Your task to perform on an android device: turn off data saver in the chrome app Image 0: 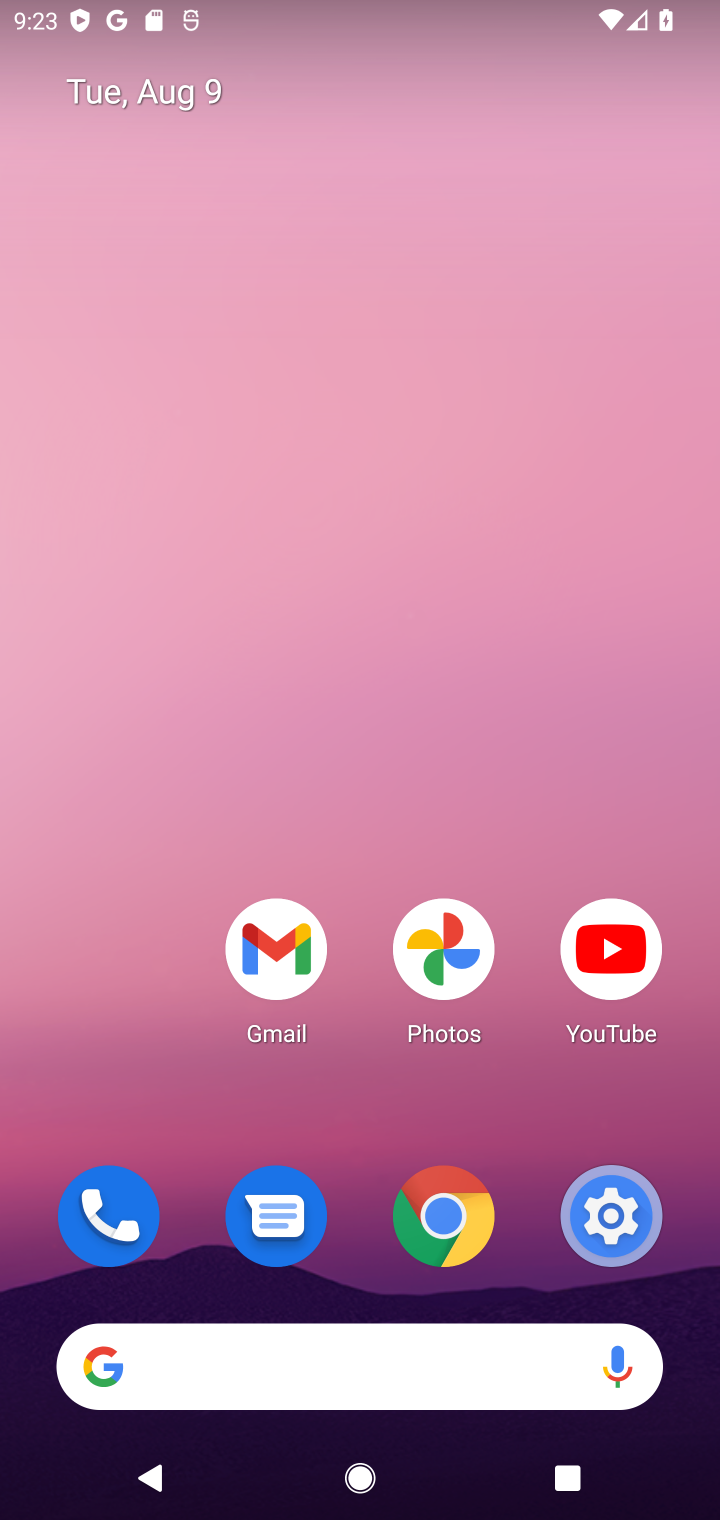
Step 0: click (432, 1205)
Your task to perform on an android device: turn off data saver in the chrome app Image 1: 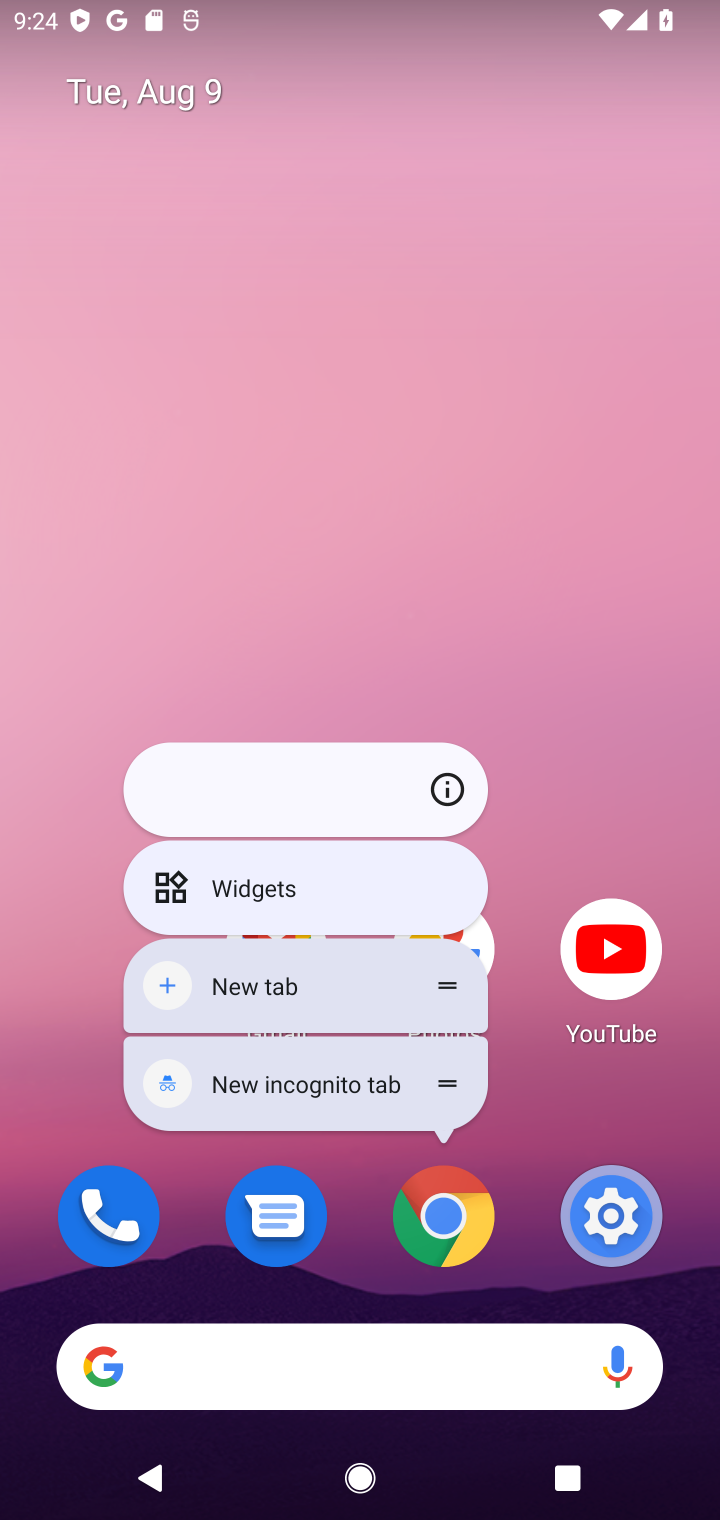
Step 1: click (468, 1216)
Your task to perform on an android device: turn off data saver in the chrome app Image 2: 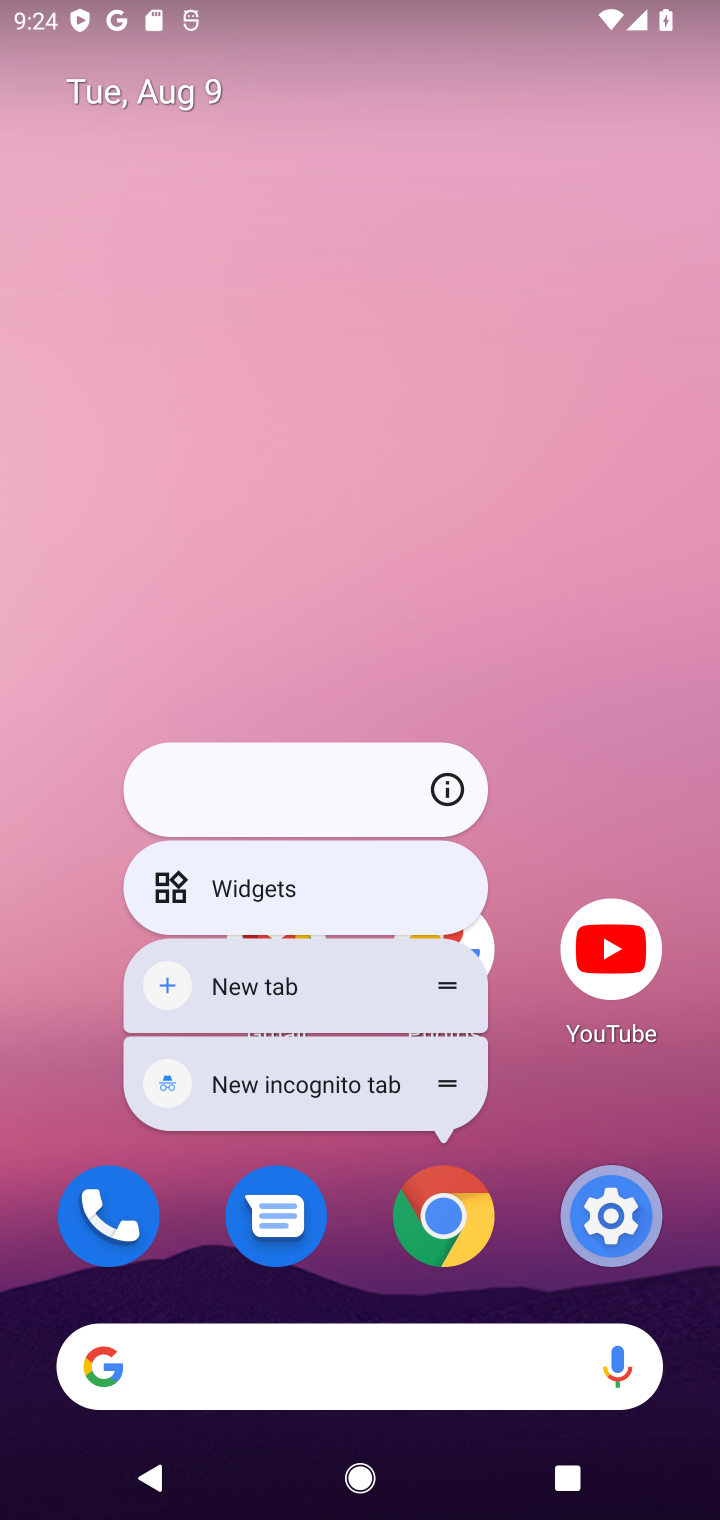
Step 2: click (442, 1217)
Your task to perform on an android device: turn off data saver in the chrome app Image 3: 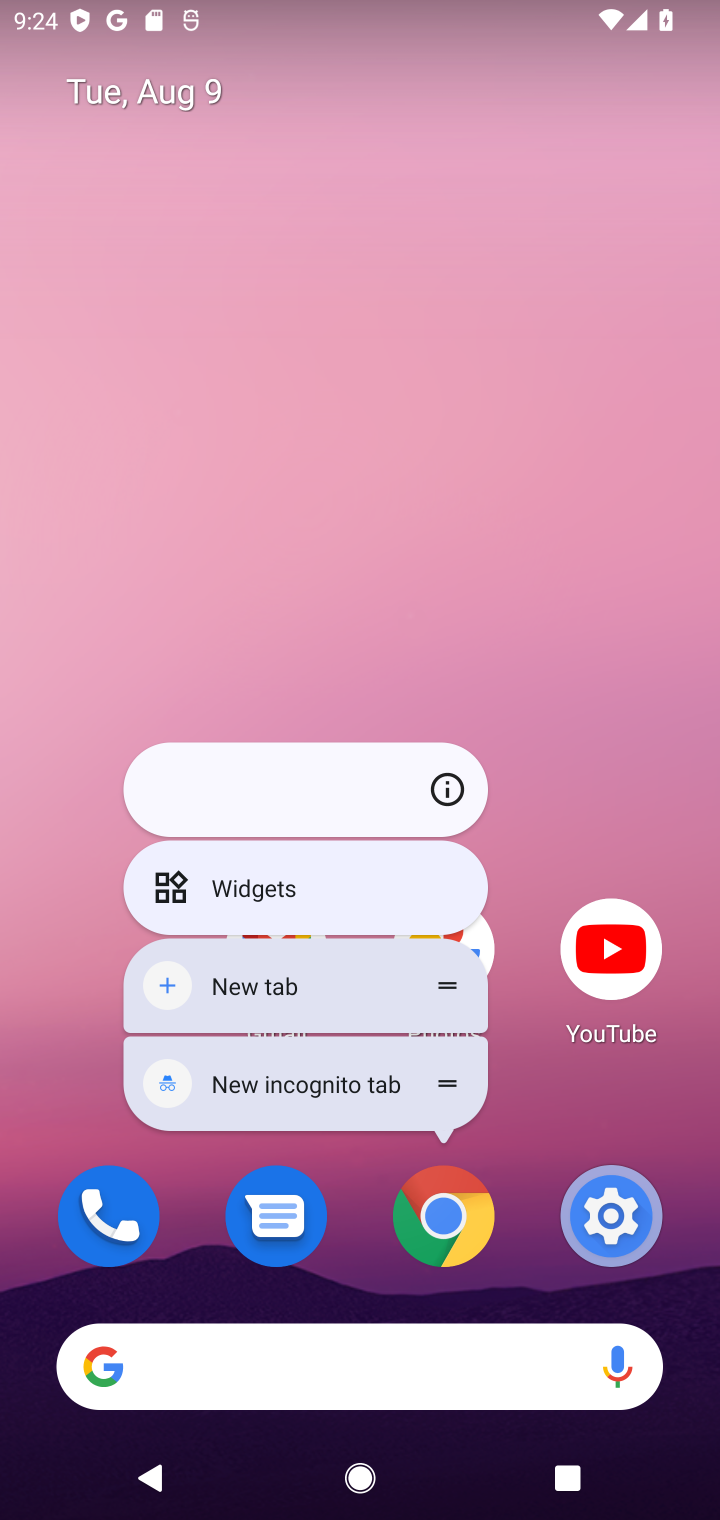
Step 3: click (442, 1243)
Your task to perform on an android device: turn off data saver in the chrome app Image 4: 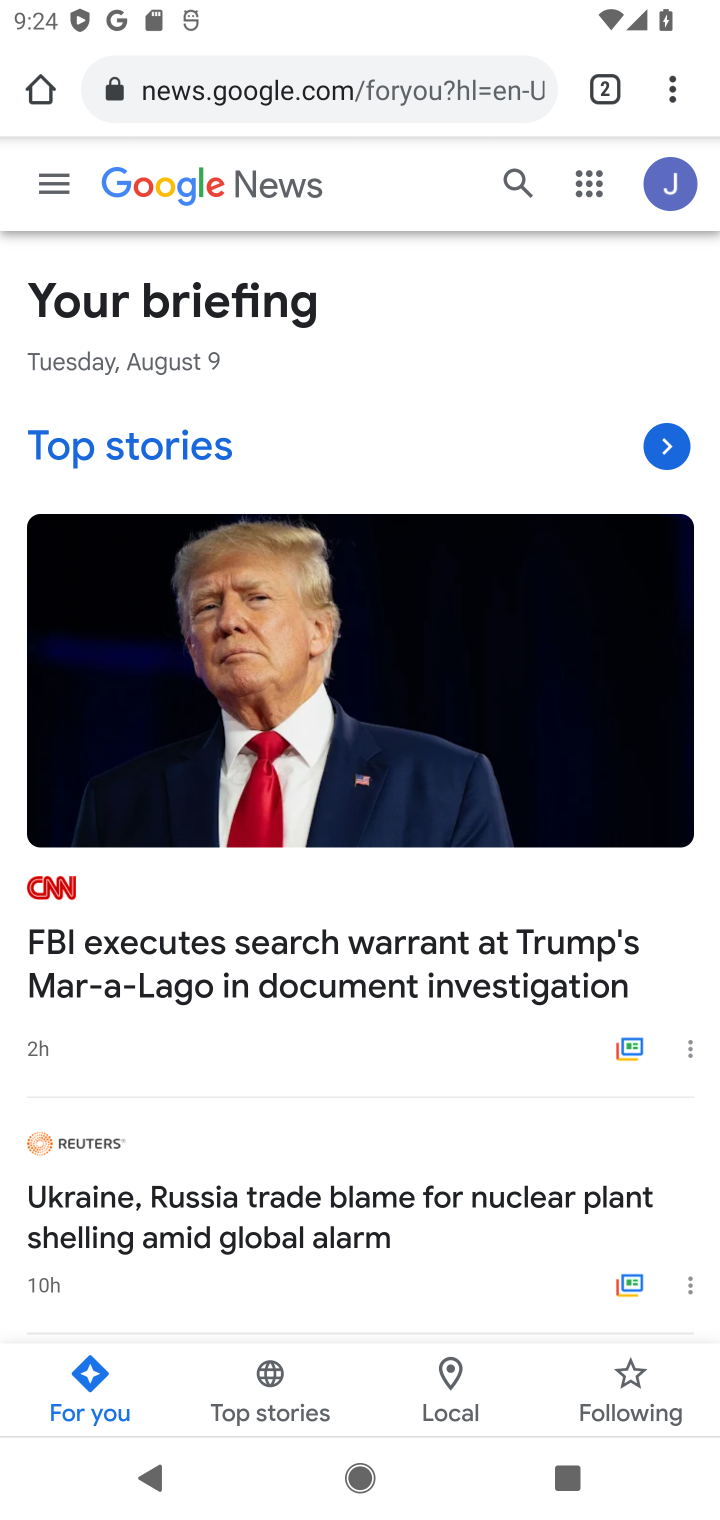
Step 4: click (674, 91)
Your task to perform on an android device: turn off data saver in the chrome app Image 5: 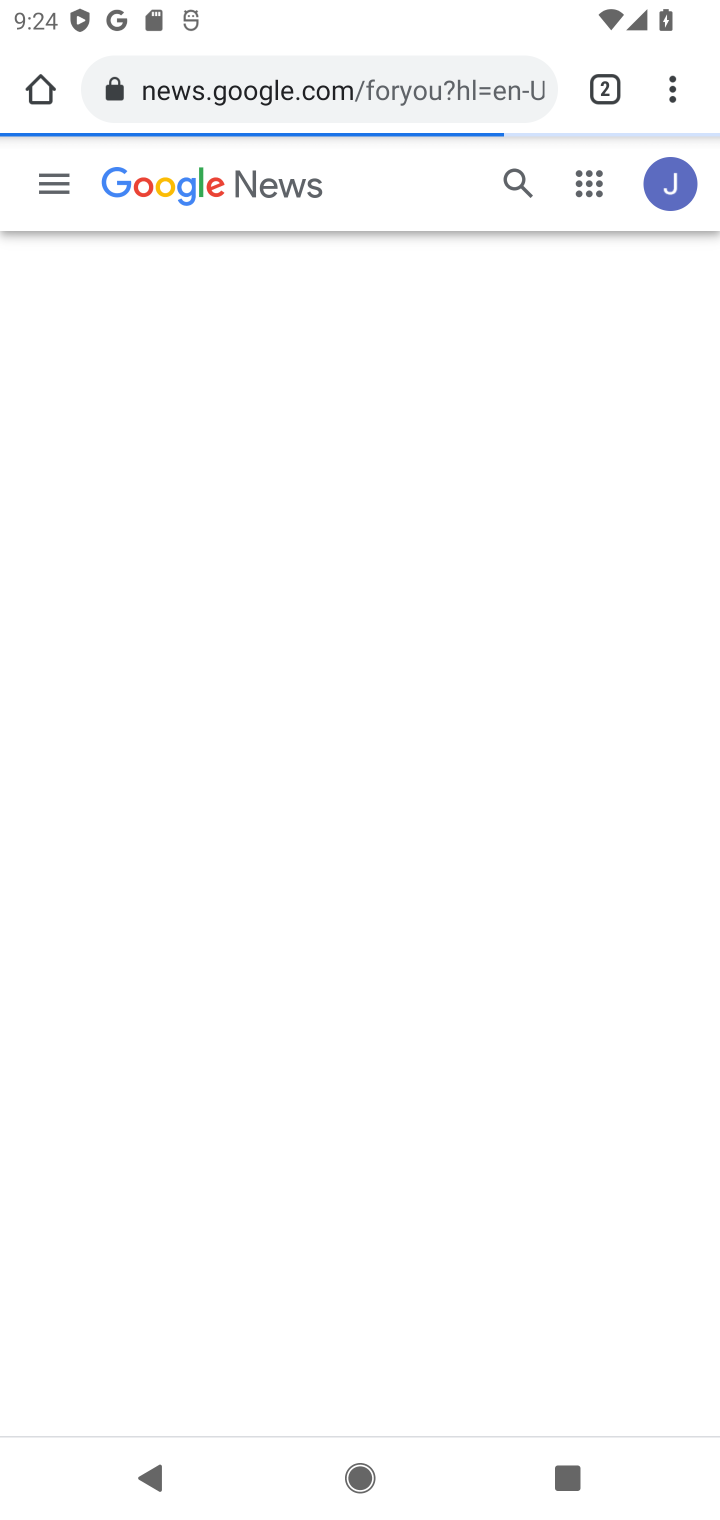
Step 5: click (673, 86)
Your task to perform on an android device: turn off data saver in the chrome app Image 6: 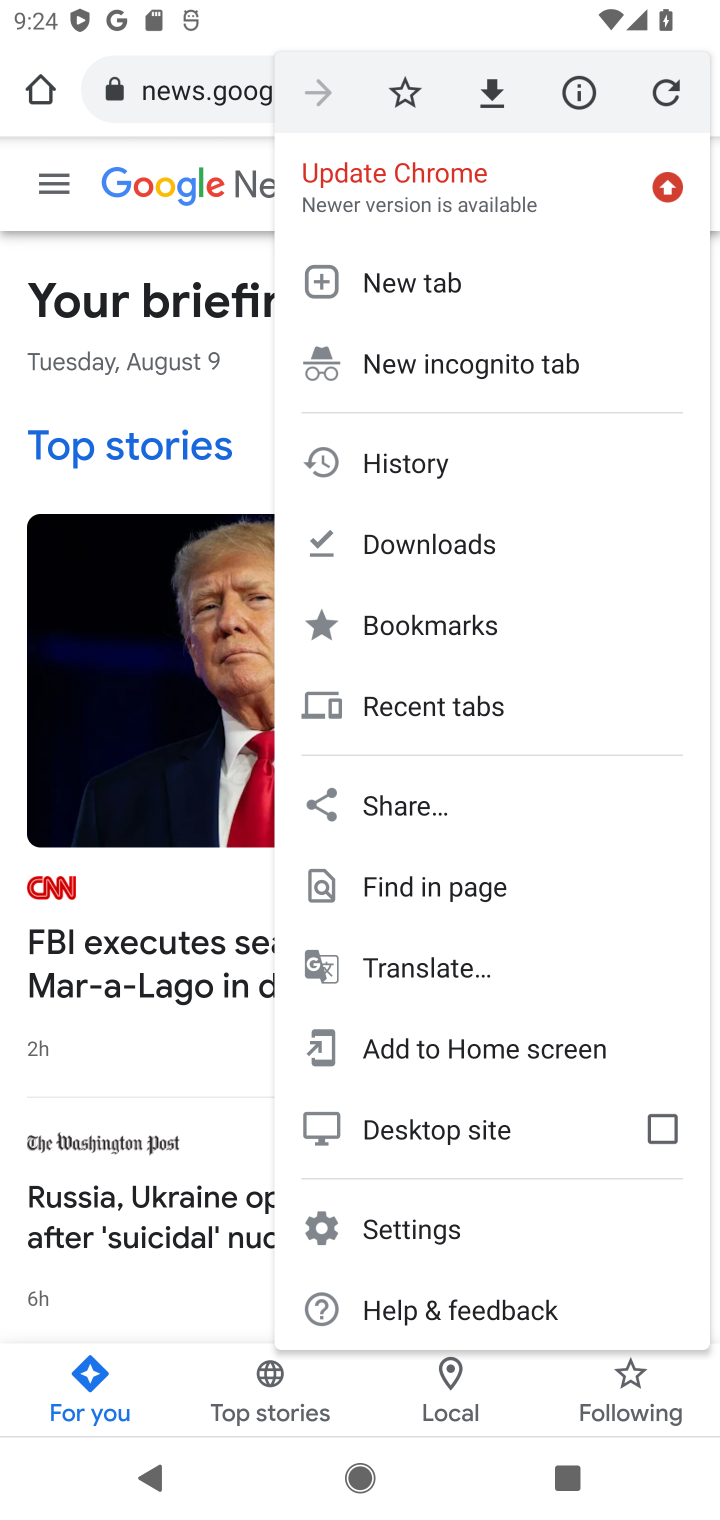
Step 6: click (669, 100)
Your task to perform on an android device: turn off data saver in the chrome app Image 7: 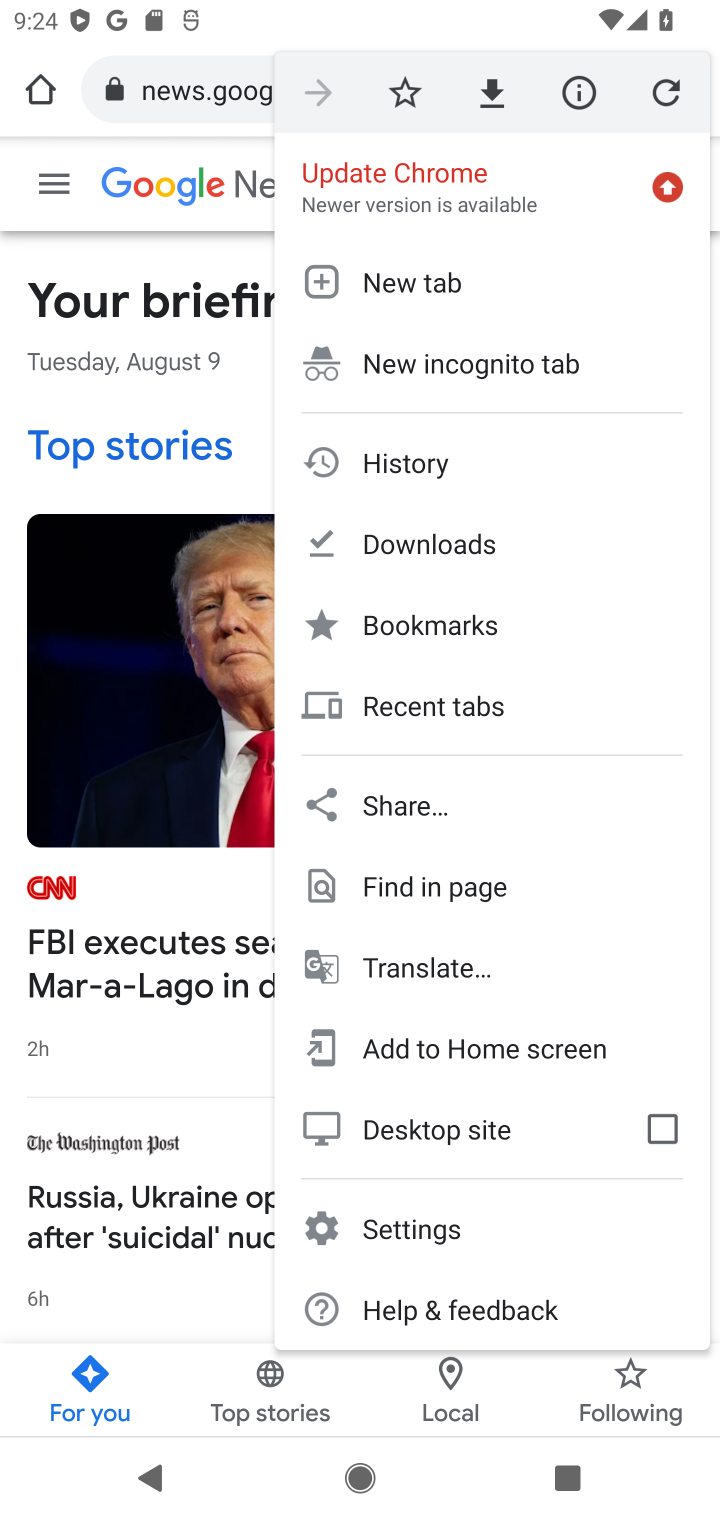
Step 7: click (402, 1218)
Your task to perform on an android device: turn off data saver in the chrome app Image 8: 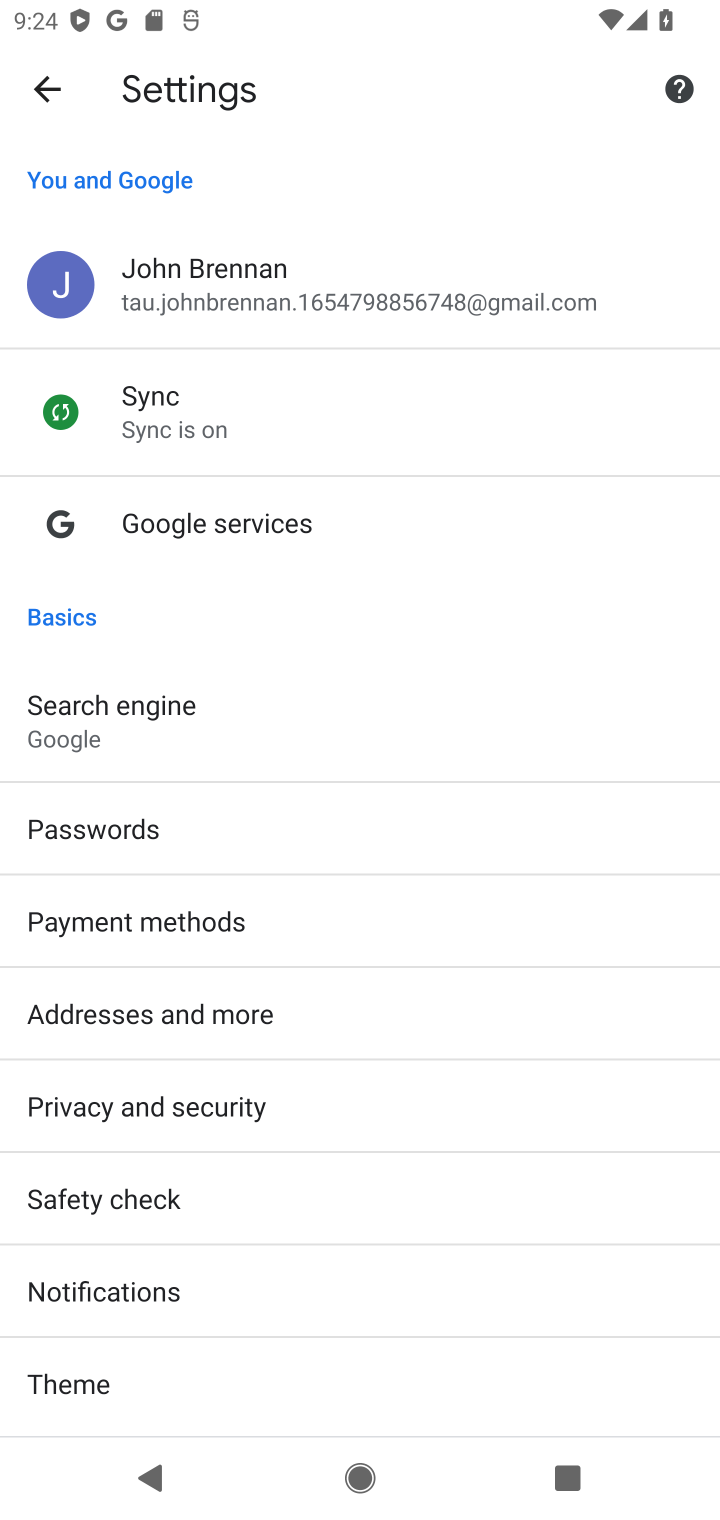
Step 8: drag from (262, 1426) to (320, 810)
Your task to perform on an android device: turn off data saver in the chrome app Image 9: 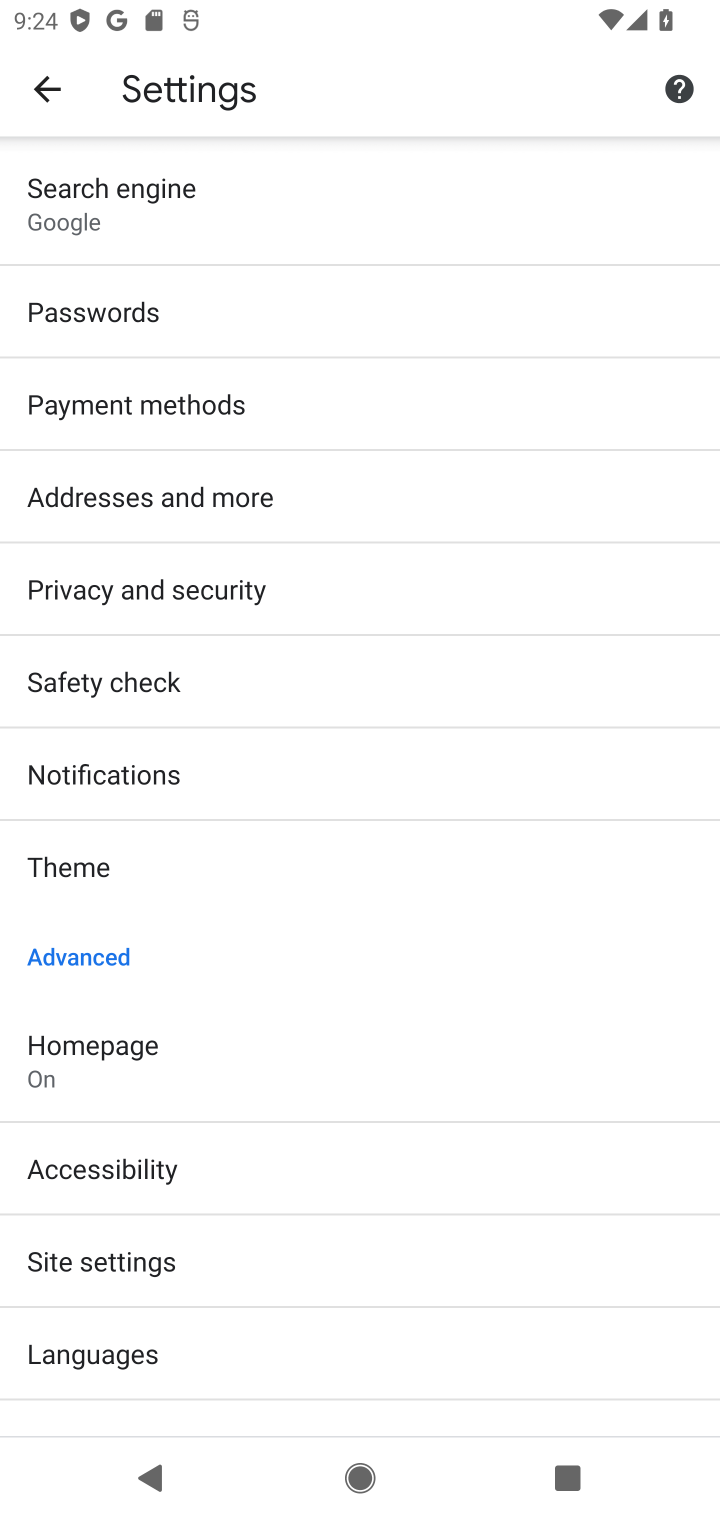
Step 9: click (131, 1274)
Your task to perform on an android device: turn off data saver in the chrome app Image 10: 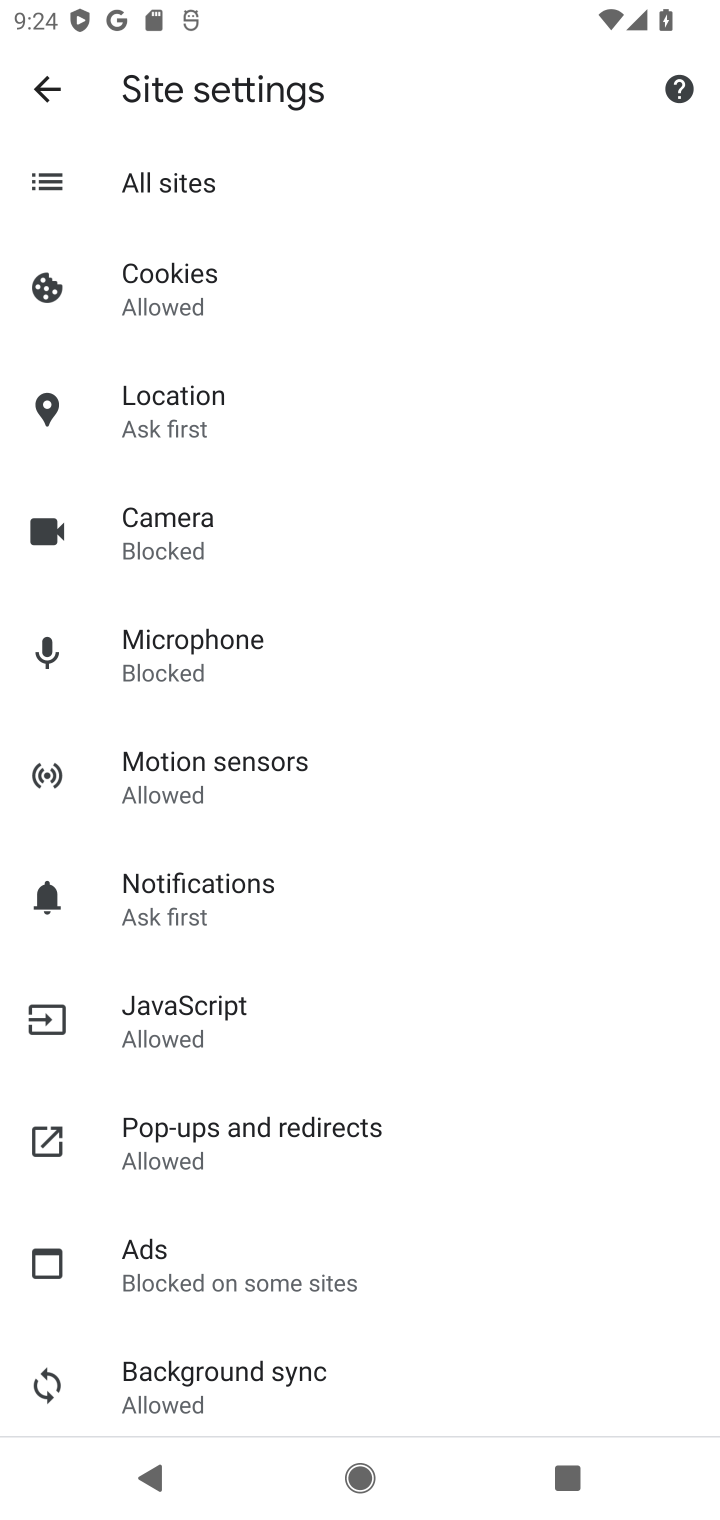
Step 10: click (35, 84)
Your task to perform on an android device: turn off data saver in the chrome app Image 11: 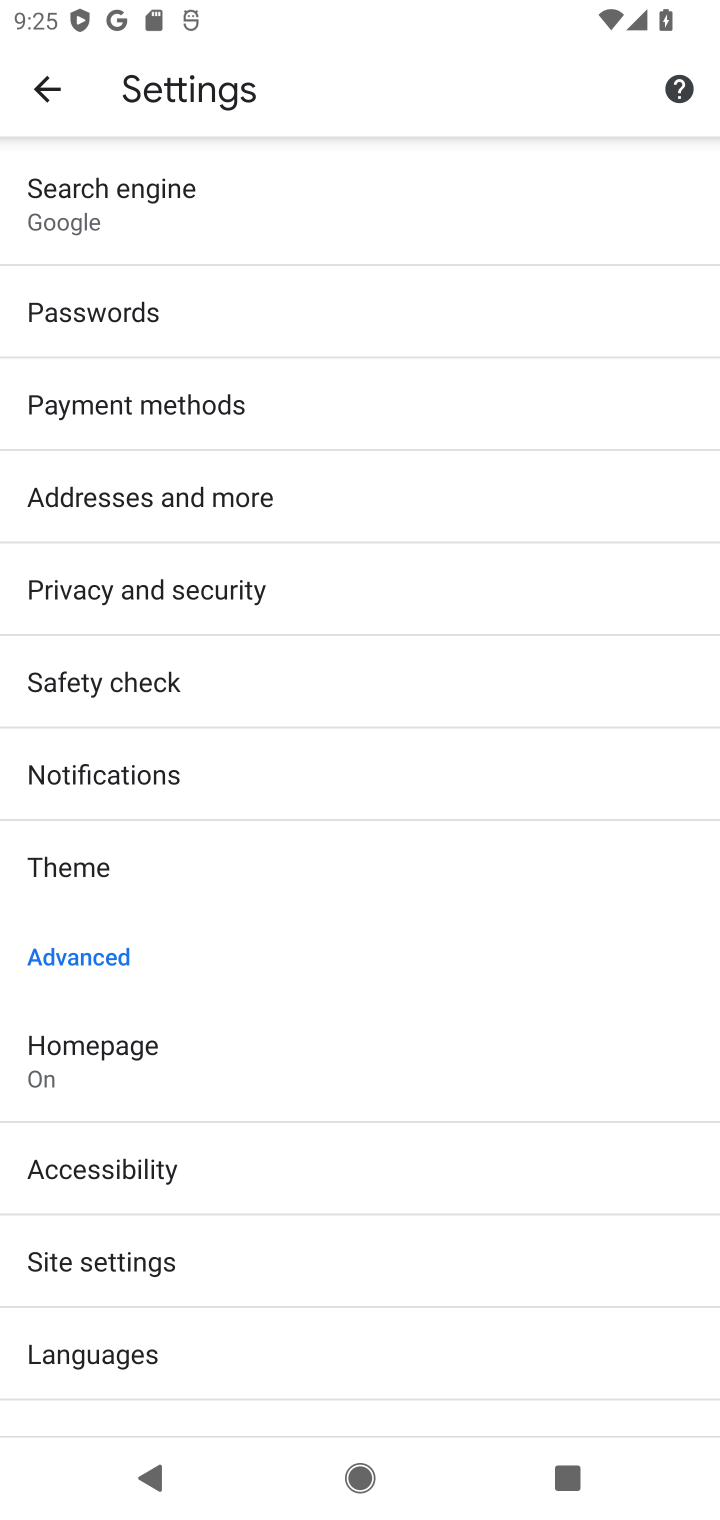
Step 11: drag from (123, 1363) to (203, 748)
Your task to perform on an android device: turn off data saver in the chrome app Image 12: 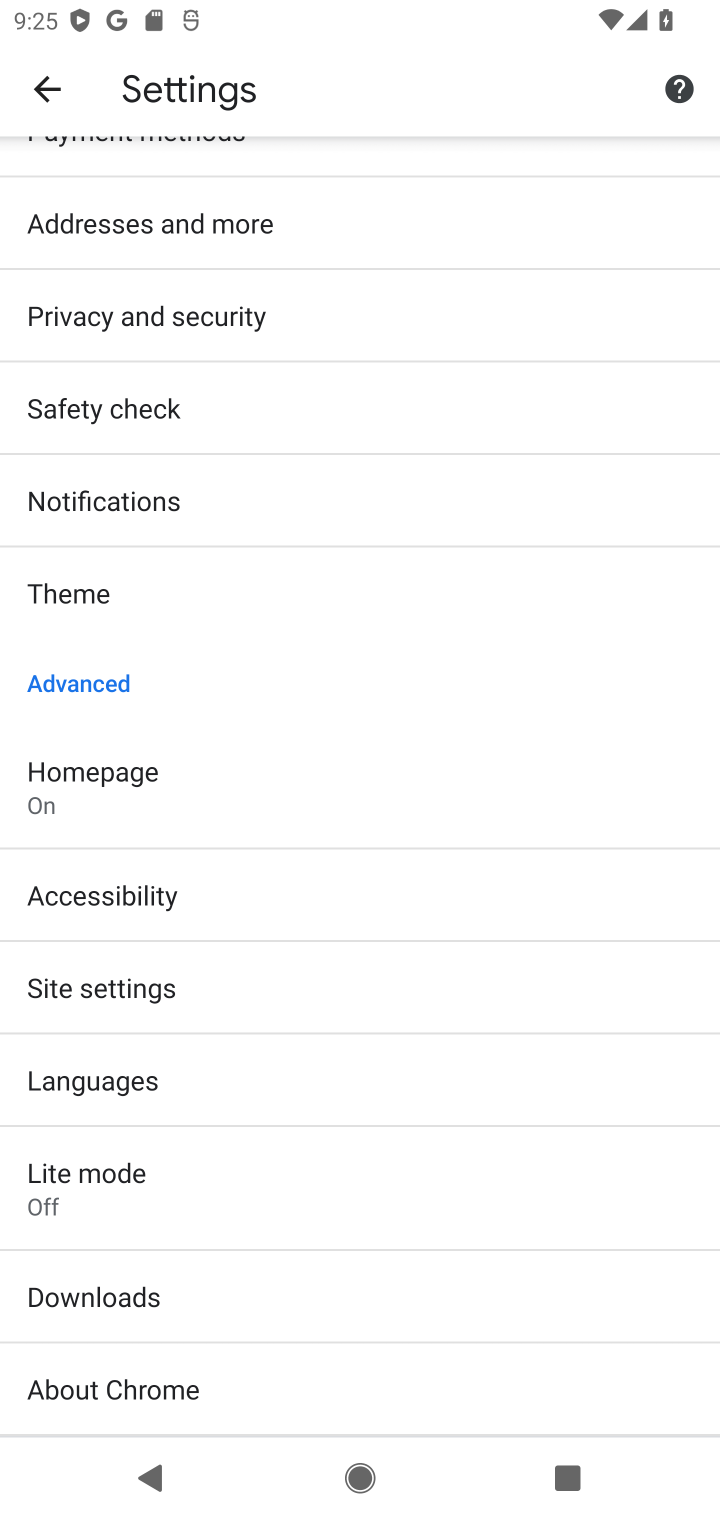
Step 12: click (70, 1182)
Your task to perform on an android device: turn off data saver in the chrome app Image 13: 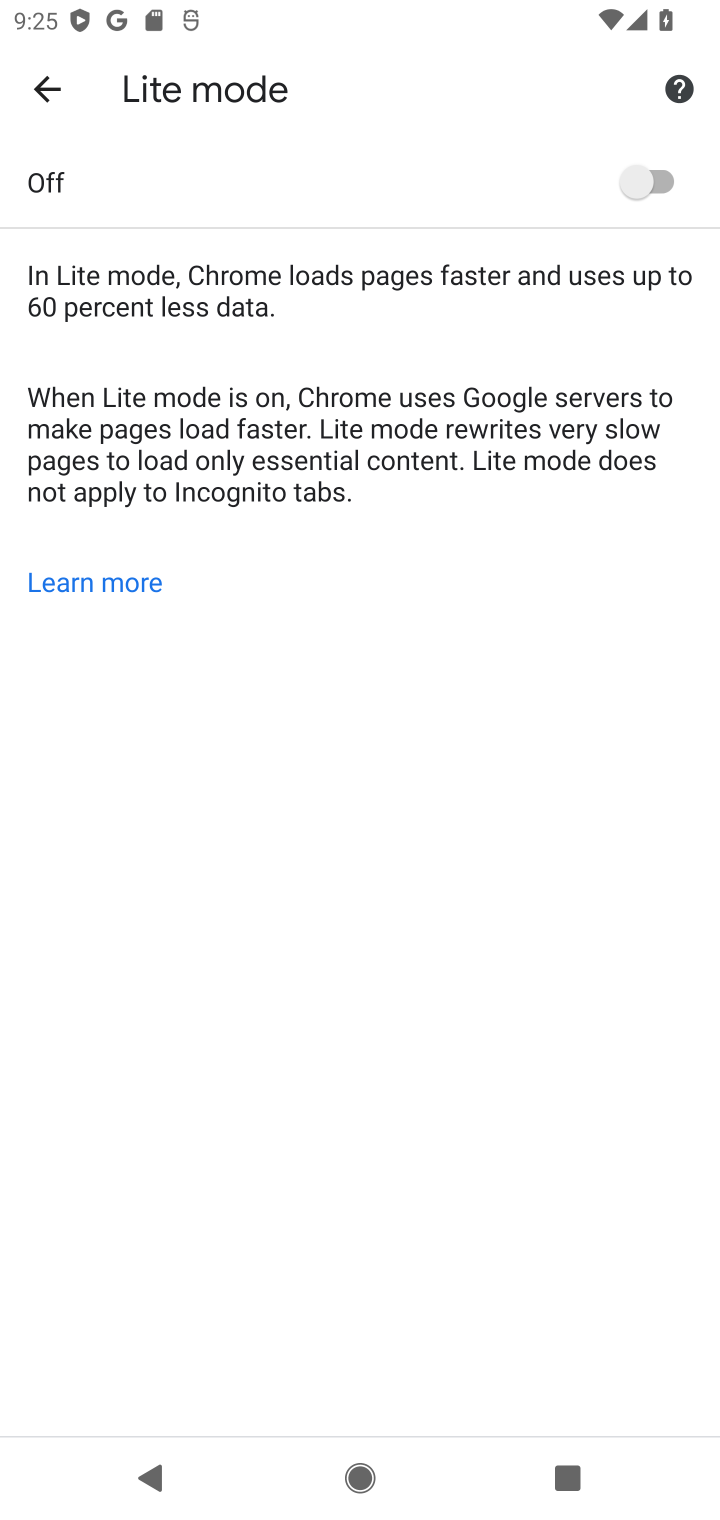
Step 13: task complete